Your task to perform on an android device: Go to eBay Image 0: 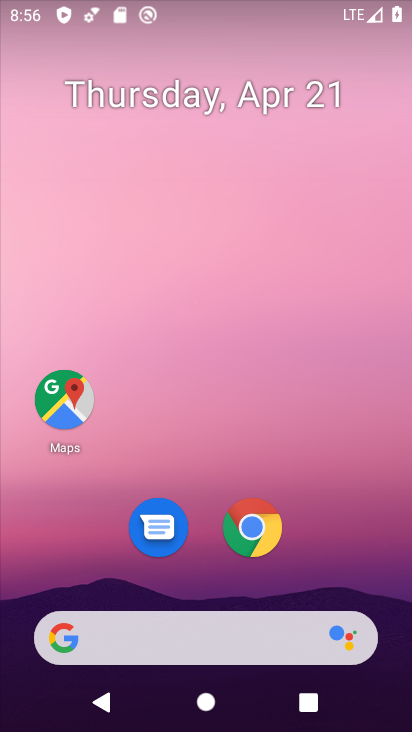
Step 0: click (248, 522)
Your task to perform on an android device: Go to eBay Image 1: 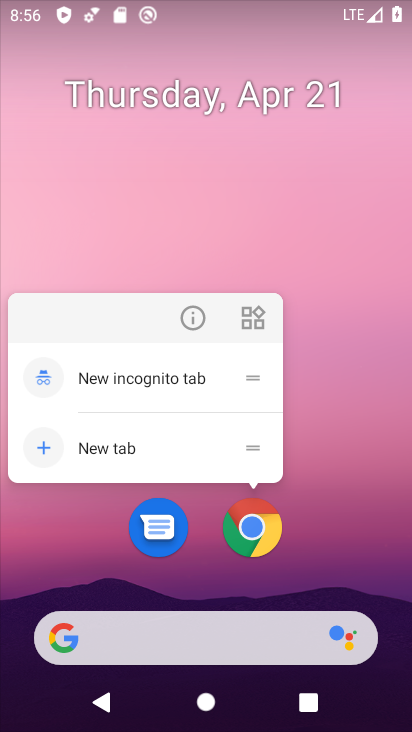
Step 1: click (325, 513)
Your task to perform on an android device: Go to eBay Image 2: 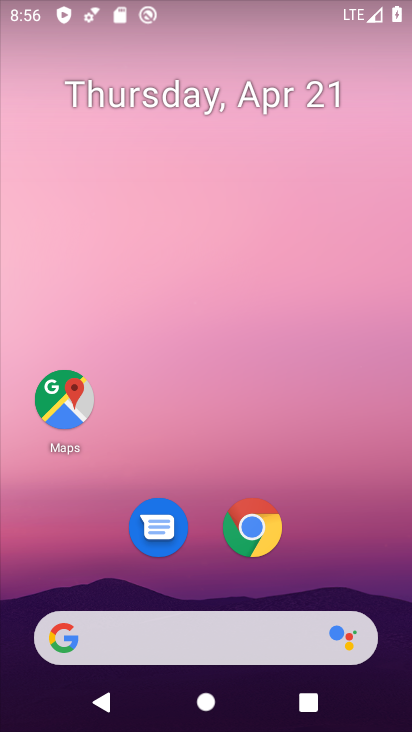
Step 2: click (253, 519)
Your task to perform on an android device: Go to eBay Image 3: 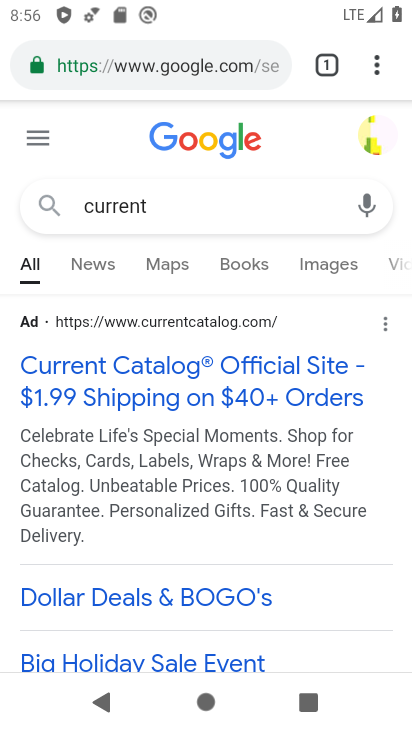
Step 3: click (377, 55)
Your task to perform on an android device: Go to eBay Image 4: 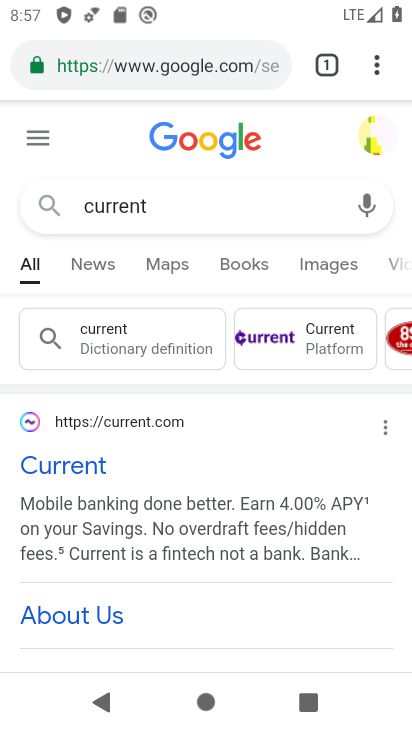
Step 4: click (329, 58)
Your task to perform on an android device: Go to eBay Image 5: 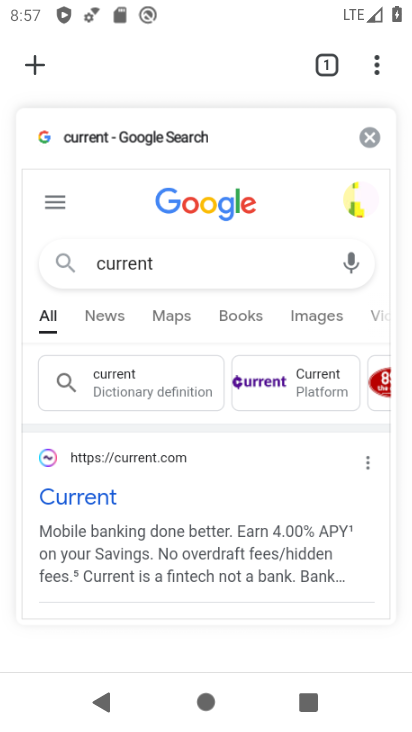
Step 5: click (31, 60)
Your task to perform on an android device: Go to eBay Image 6: 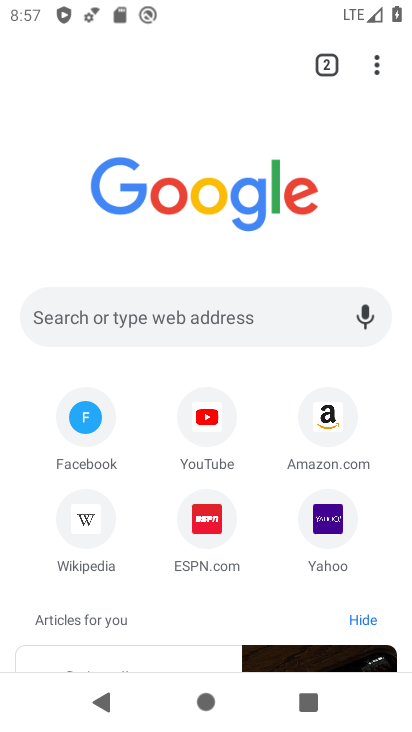
Step 6: click (127, 314)
Your task to perform on an android device: Go to eBay Image 7: 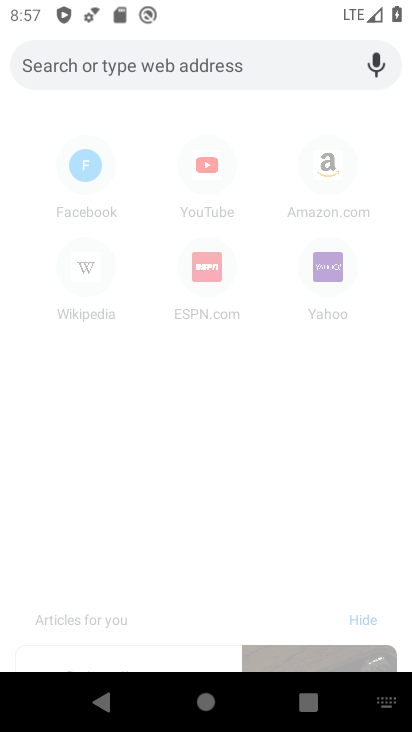
Step 7: type "ebay"
Your task to perform on an android device: Go to eBay Image 8: 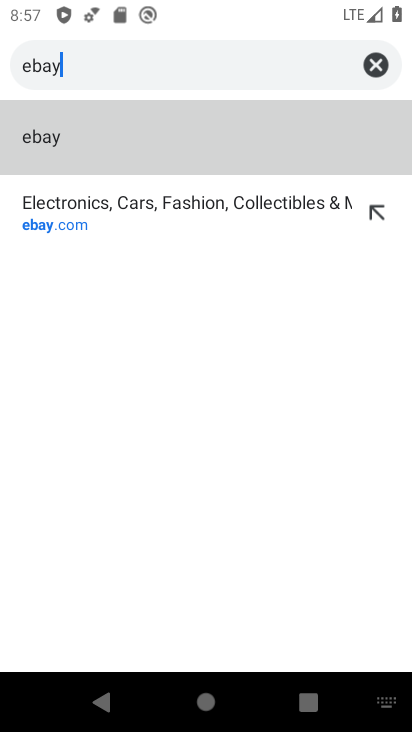
Step 8: click (105, 215)
Your task to perform on an android device: Go to eBay Image 9: 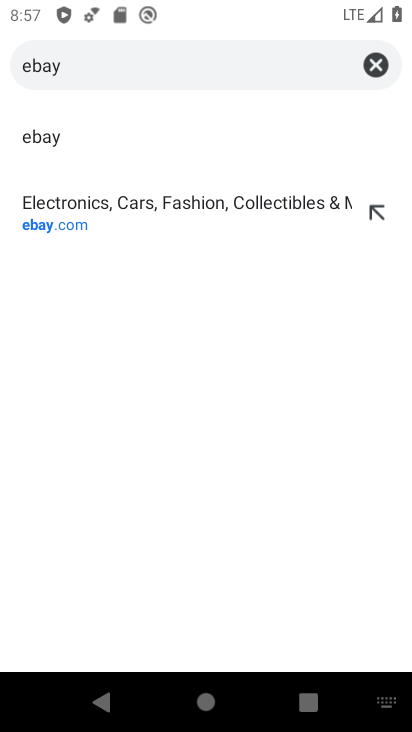
Step 9: click (97, 223)
Your task to perform on an android device: Go to eBay Image 10: 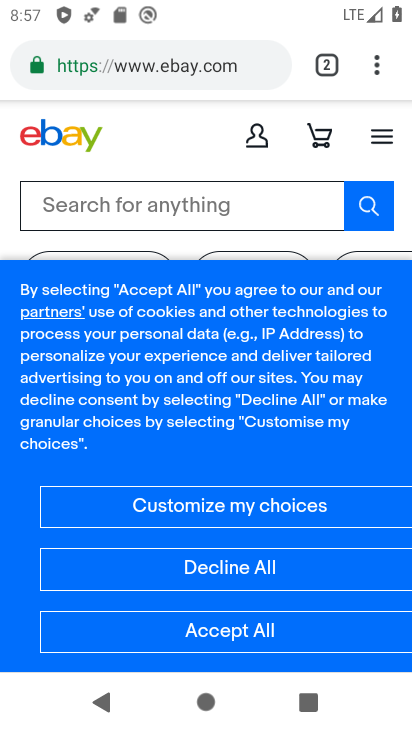
Step 10: click (252, 629)
Your task to perform on an android device: Go to eBay Image 11: 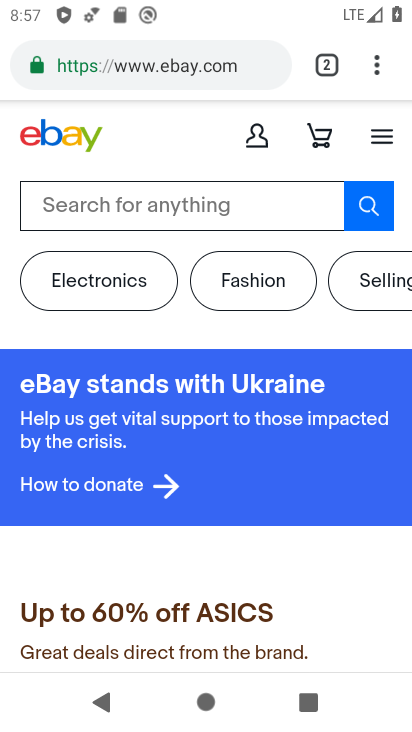
Step 11: task complete